Your task to perform on an android device: clear history in the chrome app Image 0: 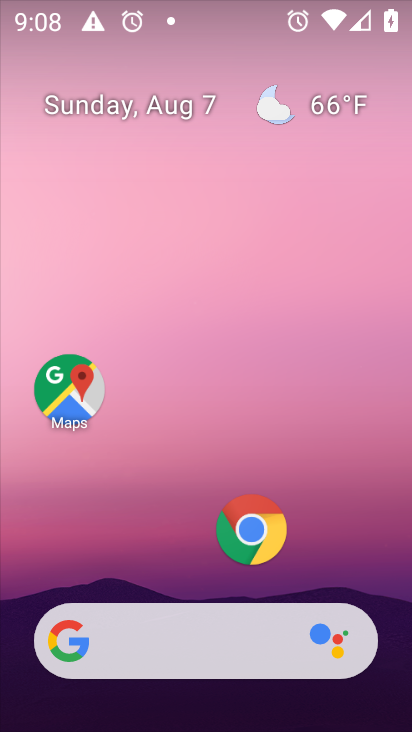
Step 0: drag from (174, 575) to (222, 6)
Your task to perform on an android device: clear history in the chrome app Image 1: 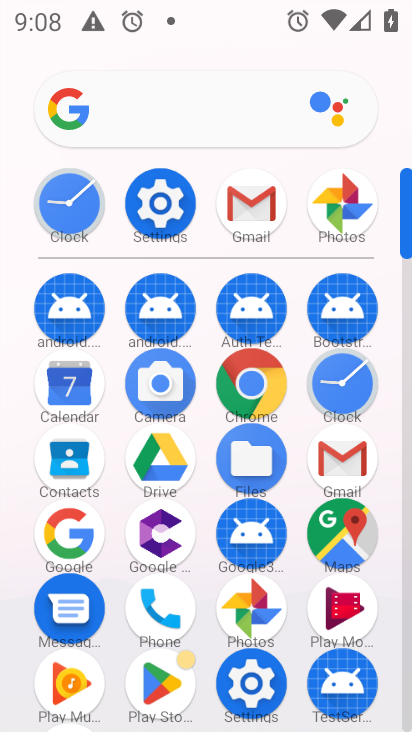
Step 1: click (262, 390)
Your task to perform on an android device: clear history in the chrome app Image 2: 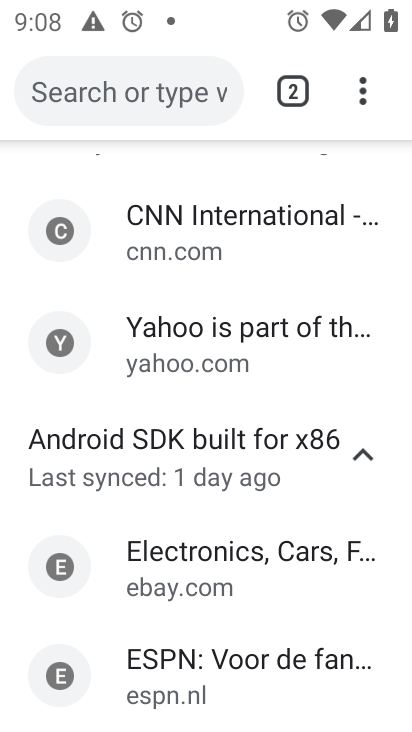
Step 2: click (358, 79)
Your task to perform on an android device: clear history in the chrome app Image 3: 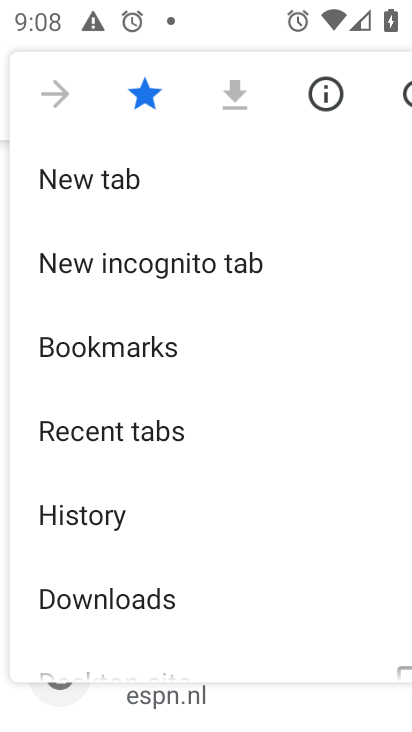
Step 3: click (113, 524)
Your task to perform on an android device: clear history in the chrome app Image 4: 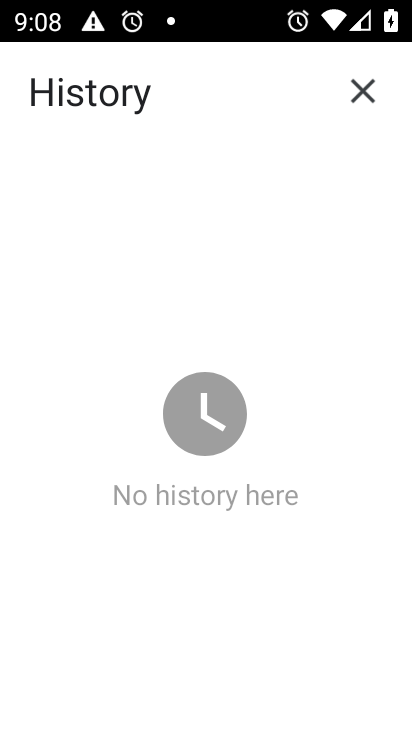
Step 4: task complete